Your task to perform on an android device: Go to network settings Image 0: 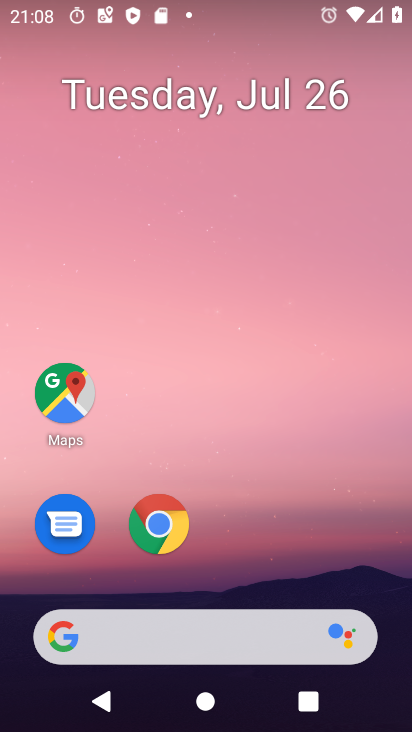
Step 0: drag from (315, 541) to (341, 37)
Your task to perform on an android device: Go to network settings Image 1: 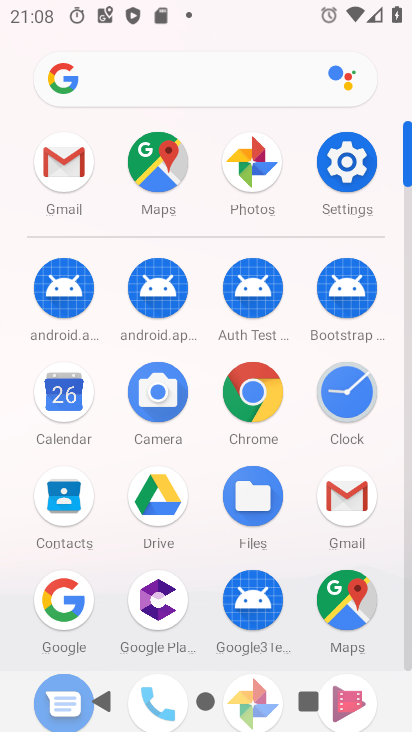
Step 1: click (363, 158)
Your task to perform on an android device: Go to network settings Image 2: 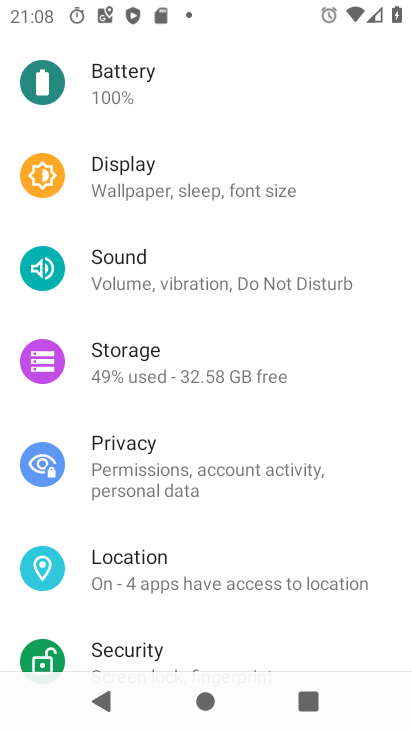
Step 2: drag from (219, 128) to (292, 651)
Your task to perform on an android device: Go to network settings Image 3: 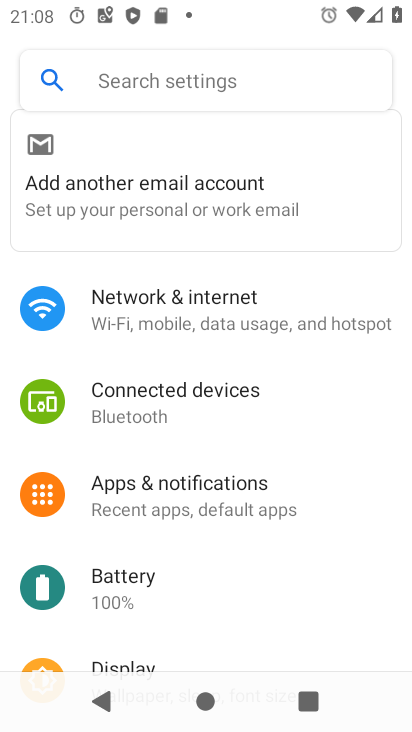
Step 3: click (187, 304)
Your task to perform on an android device: Go to network settings Image 4: 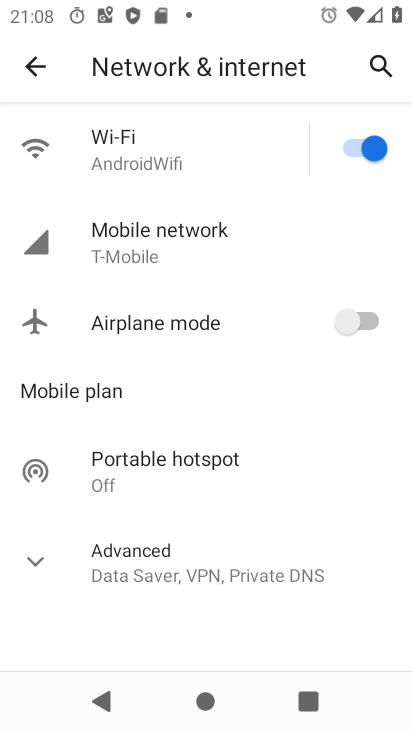
Step 4: task complete